Your task to perform on an android device: Do I have any events today? Image 0: 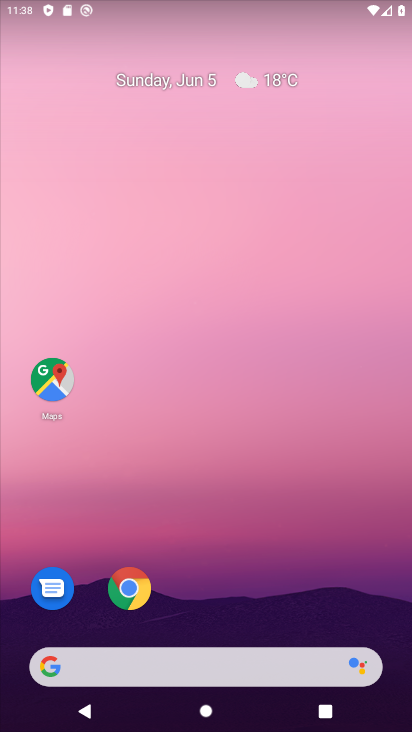
Step 0: drag from (205, 637) to (267, 61)
Your task to perform on an android device: Do I have any events today? Image 1: 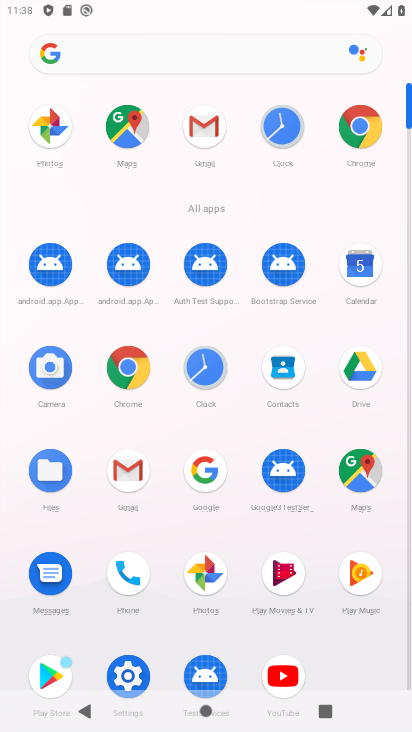
Step 1: click (350, 271)
Your task to perform on an android device: Do I have any events today? Image 2: 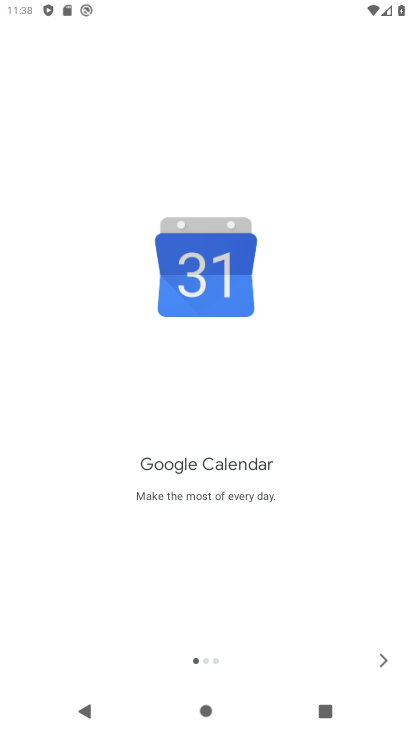
Step 2: click (381, 649)
Your task to perform on an android device: Do I have any events today? Image 3: 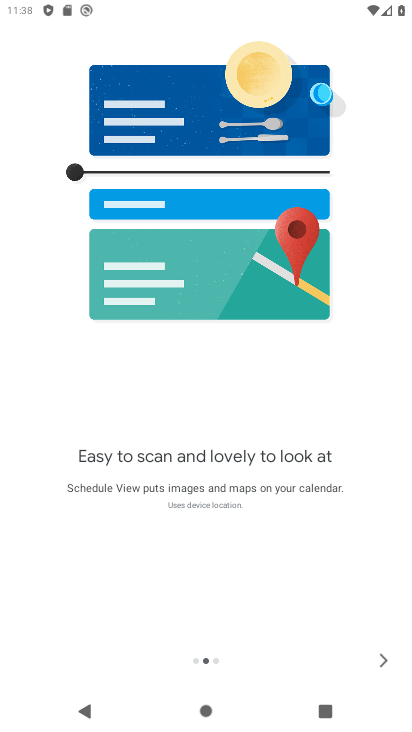
Step 3: click (377, 649)
Your task to perform on an android device: Do I have any events today? Image 4: 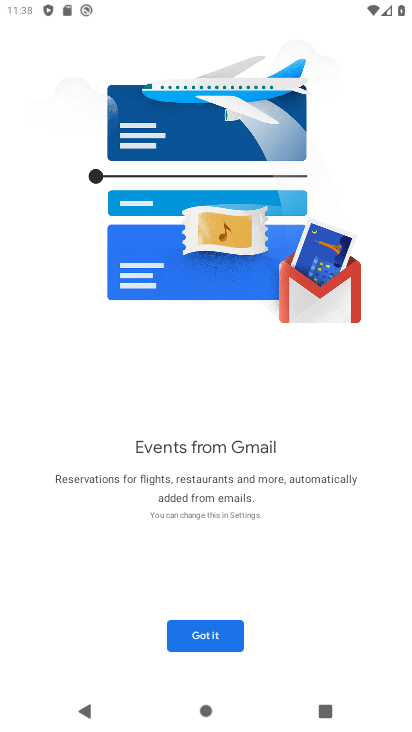
Step 4: click (210, 635)
Your task to perform on an android device: Do I have any events today? Image 5: 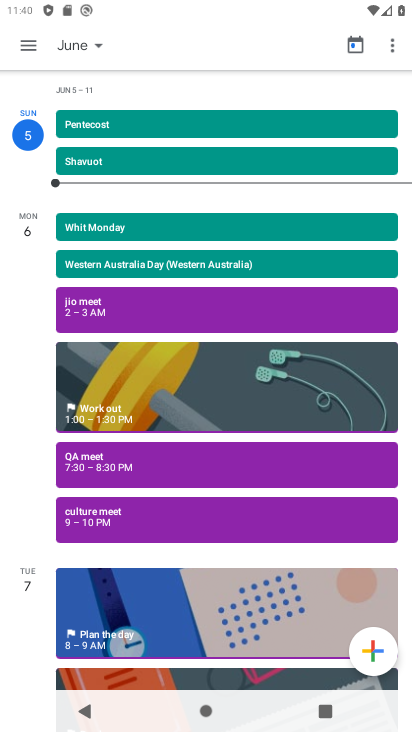
Step 5: click (108, 225)
Your task to perform on an android device: Do I have any events today? Image 6: 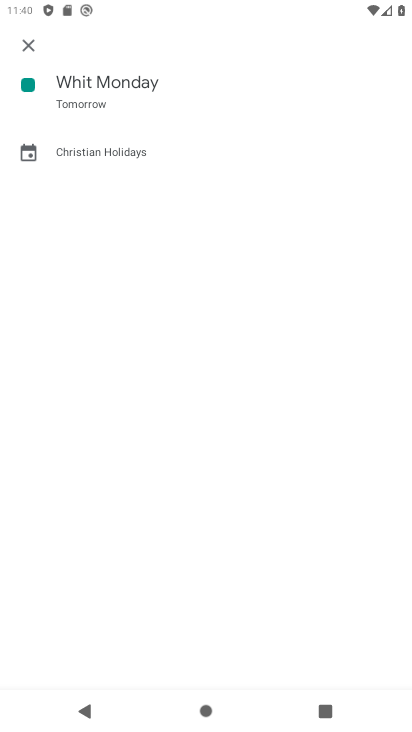
Step 6: task complete